Your task to perform on an android device: Open Google Maps and go to "Timeline" Image 0: 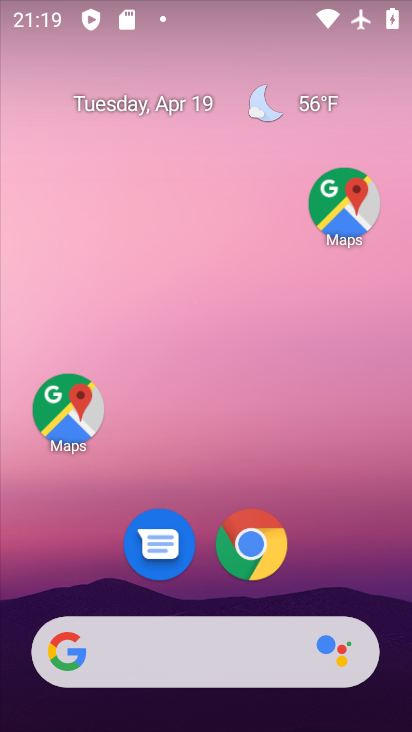
Step 0: click (401, 543)
Your task to perform on an android device: Open Google Maps and go to "Timeline" Image 1: 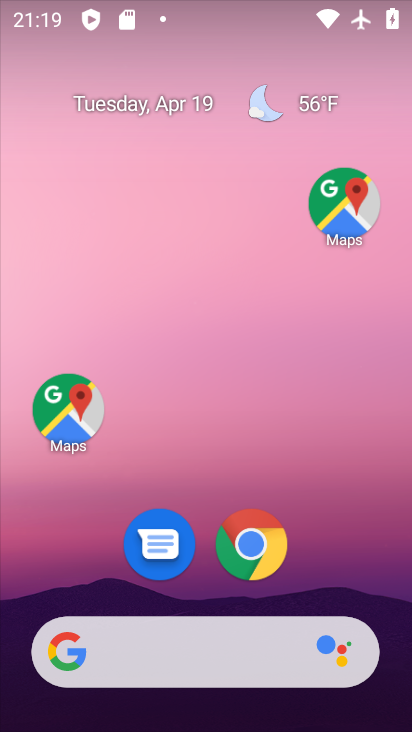
Step 1: drag from (172, 546) to (316, 102)
Your task to perform on an android device: Open Google Maps and go to "Timeline" Image 2: 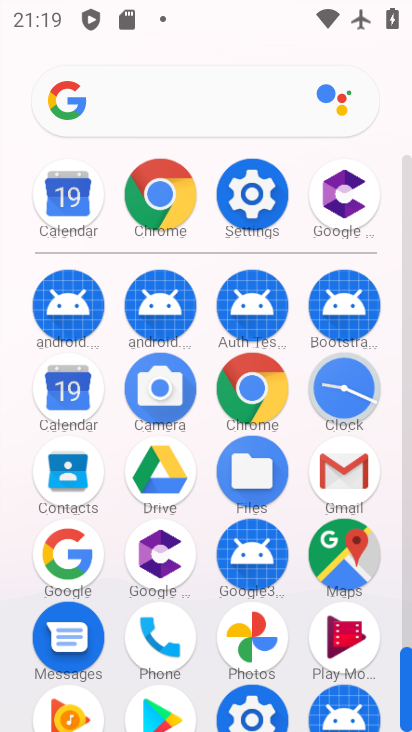
Step 2: click (339, 563)
Your task to perform on an android device: Open Google Maps and go to "Timeline" Image 3: 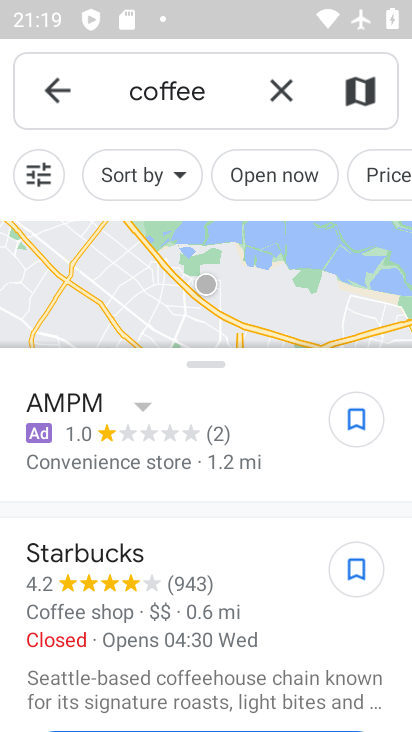
Step 3: click (57, 87)
Your task to perform on an android device: Open Google Maps and go to "Timeline" Image 4: 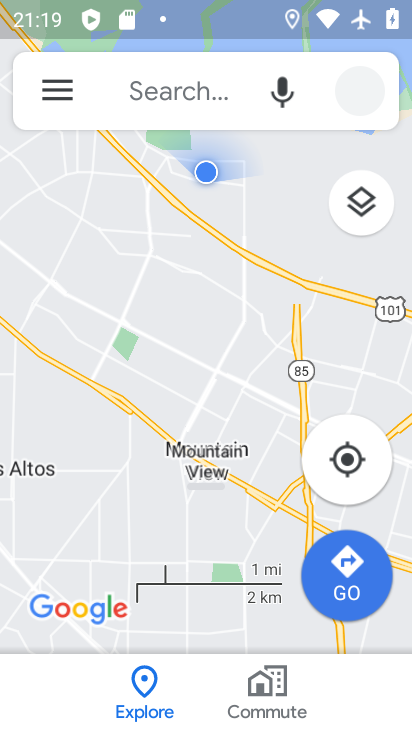
Step 4: click (51, 93)
Your task to perform on an android device: Open Google Maps and go to "Timeline" Image 5: 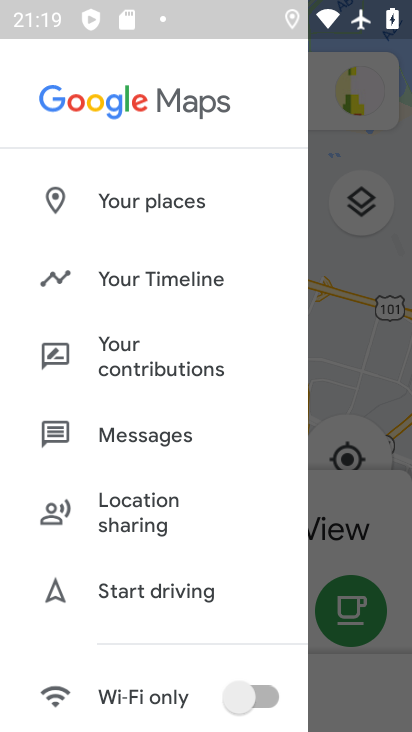
Step 5: click (135, 274)
Your task to perform on an android device: Open Google Maps and go to "Timeline" Image 6: 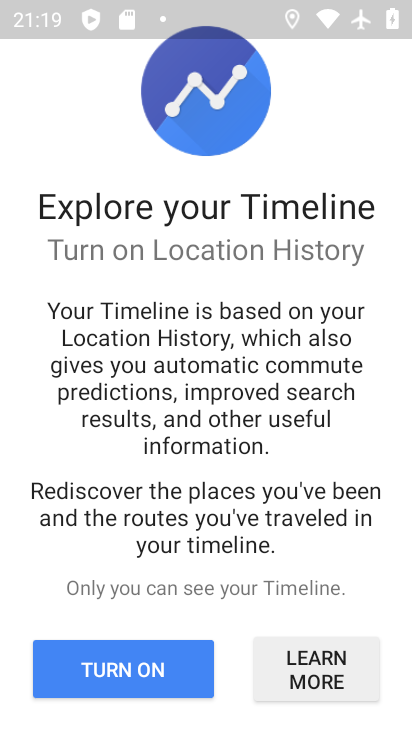
Step 6: drag from (202, 571) to (391, 149)
Your task to perform on an android device: Open Google Maps and go to "Timeline" Image 7: 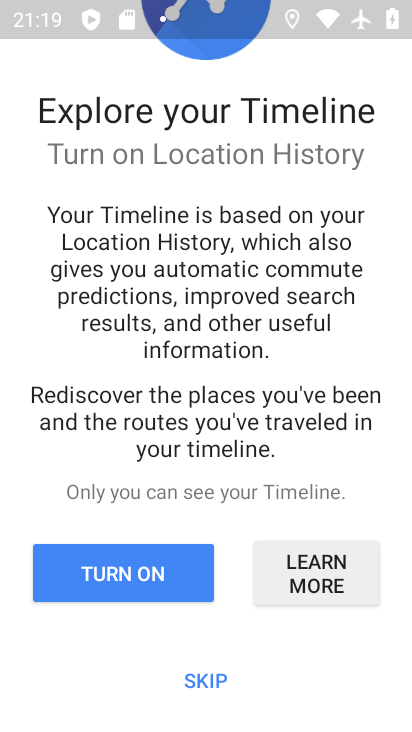
Step 7: click (209, 672)
Your task to perform on an android device: Open Google Maps and go to "Timeline" Image 8: 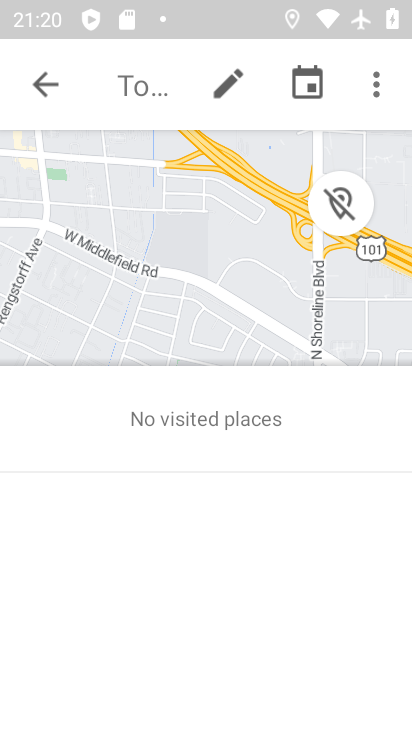
Step 8: task complete